Your task to perform on an android device: Open Yahoo.com Image 0: 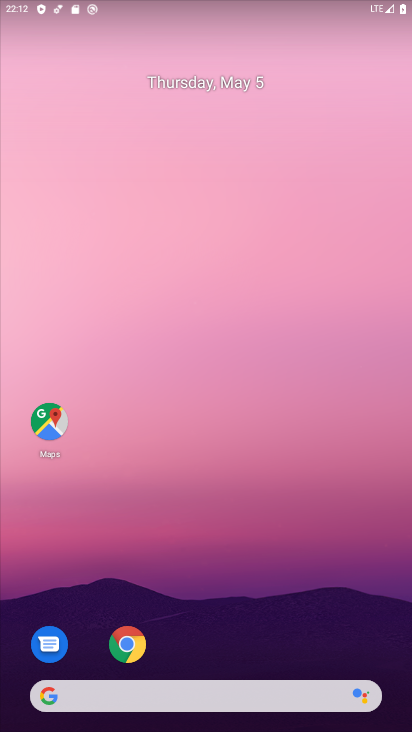
Step 0: click (140, 651)
Your task to perform on an android device: Open Yahoo.com Image 1: 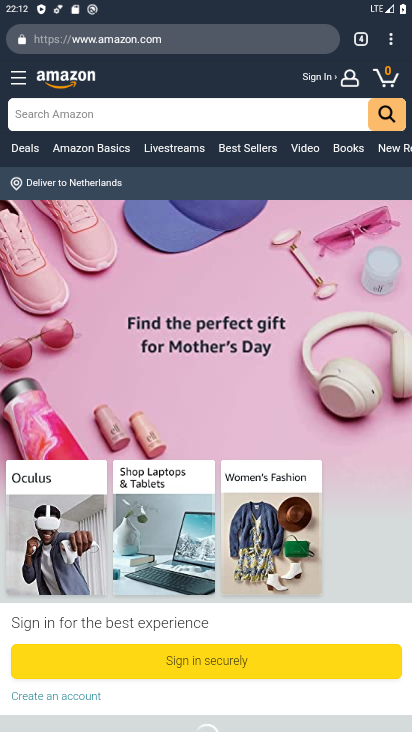
Step 1: click (370, 34)
Your task to perform on an android device: Open Yahoo.com Image 2: 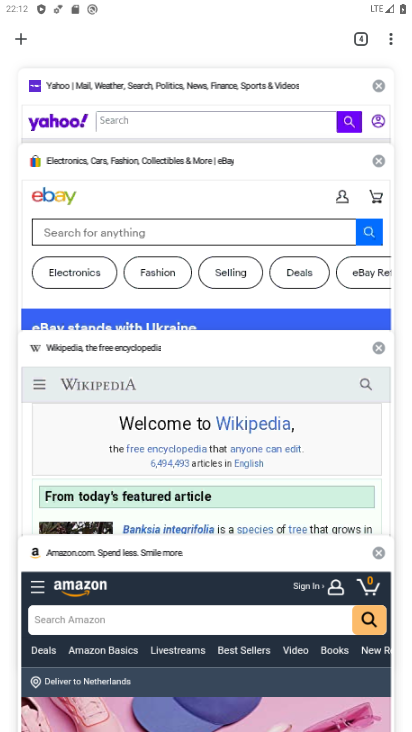
Step 2: click (48, 104)
Your task to perform on an android device: Open Yahoo.com Image 3: 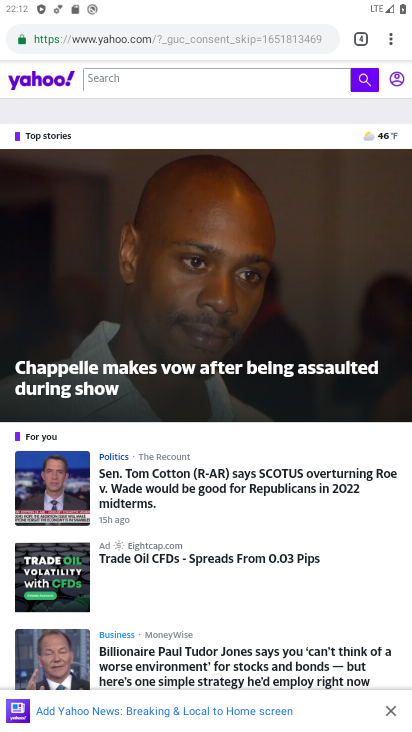
Step 3: task complete